Your task to perform on an android device: see tabs open on other devices in the chrome app Image 0: 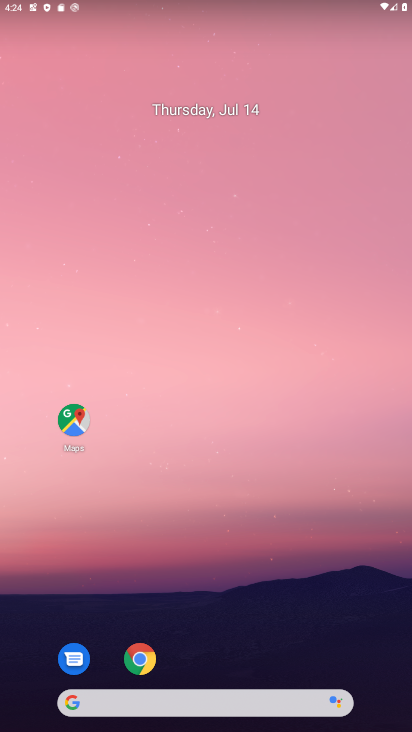
Step 0: click (138, 654)
Your task to perform on an android device: see tabs open on other devices in the chrome app Image 1: 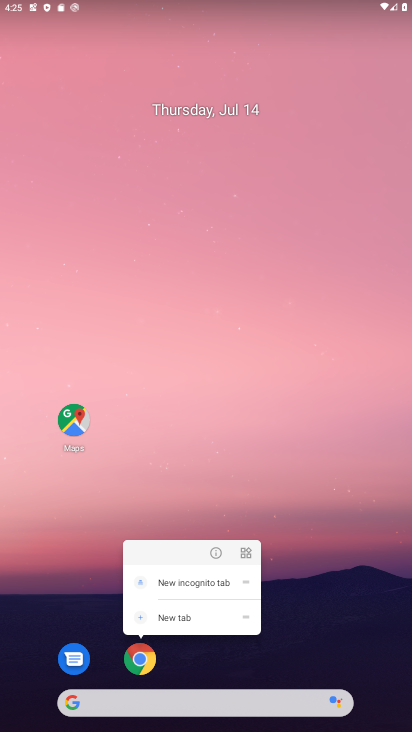
Step 1: click (136, 658)
Your task to perform on an android device: see tabs open on other devices in the chrome app Image 2: 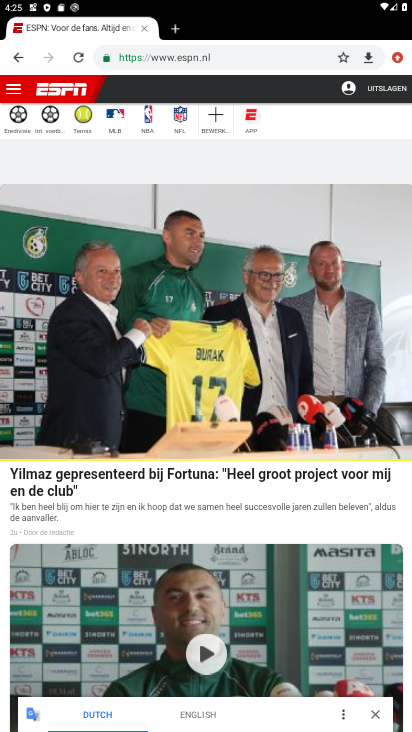
Step 2: click (181, 26)
Your task to perform on an android device: see tabs open on other devices in the chrome app Image 3: 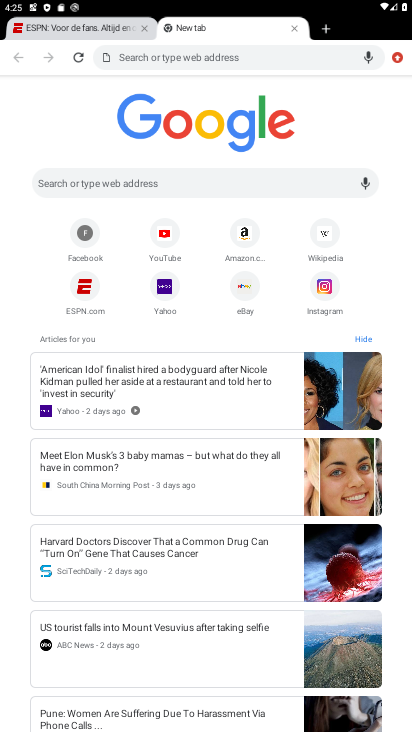
Step 3: click (395, 61)
Your task to perform on an android device: see tabs open on other devices in the chrome app Image 4: 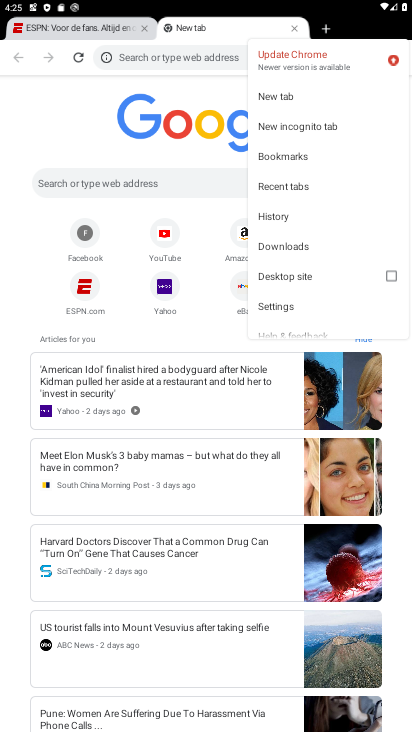
Step 4: click (304, 184)
Your task to perform on an android device: see tabs open on other devices in the chrome app Image 5: 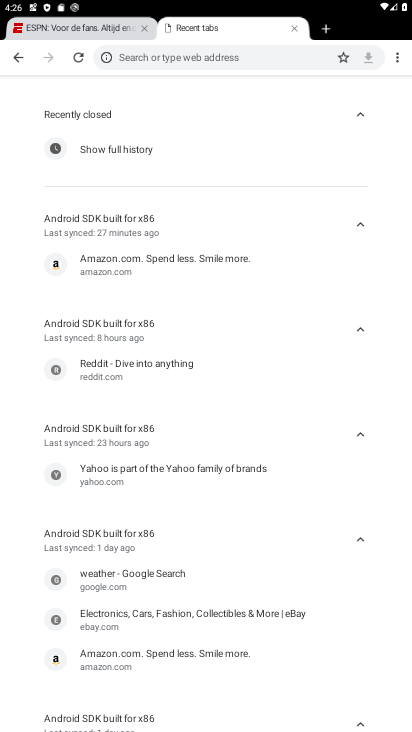
Step 5: task complete